Your task to perform on an android device: What's on my calendar tomorrow? Image 0: 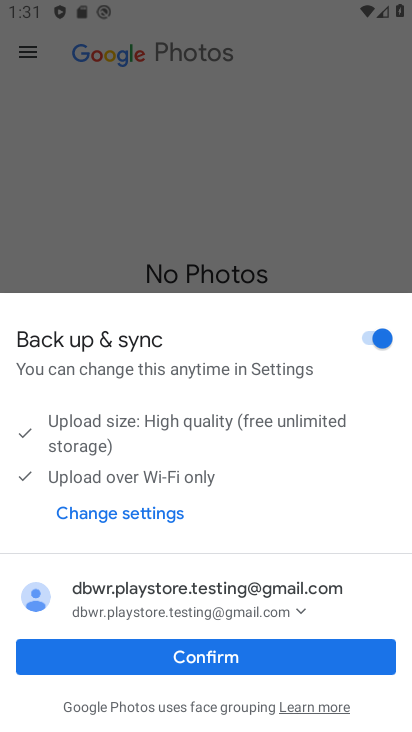
Step 0: press home button
Your task to perform on an android device: What's on my calendar tomorrow? Image 1: 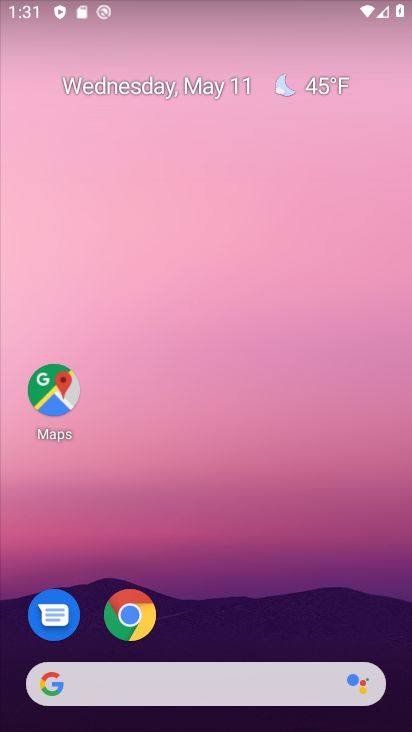
Step 1: drag from (329, 520) to (325, 169)
Your task to perform on an android device: What's on my calendar tomorrow? Image 2: 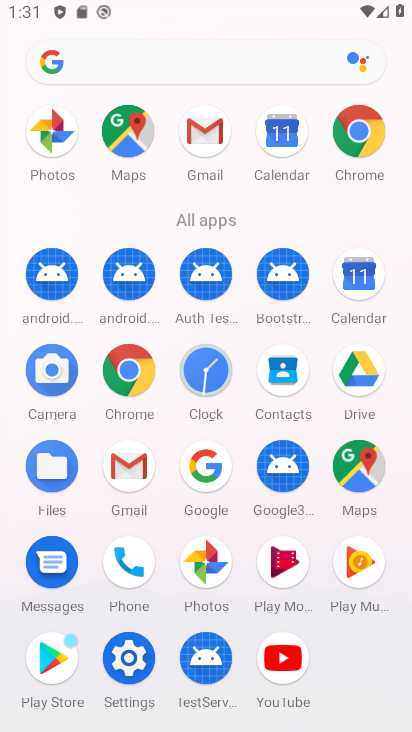
Step 2: click (361, 277)
Your task to perform on an android device: What's on my calendar tomorrow? Image 3: 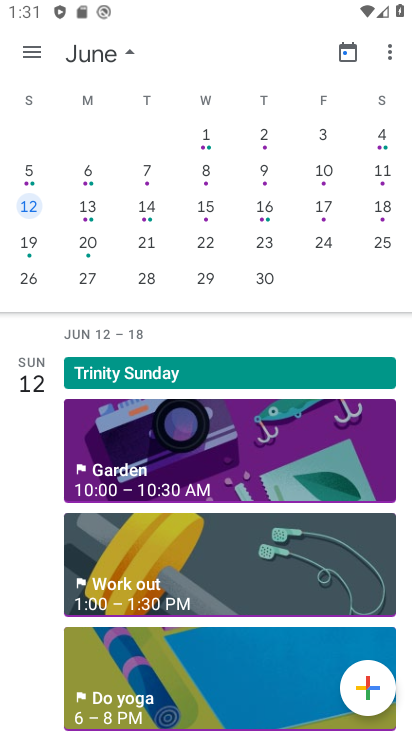
Step 3: drag from (78, 113) to (320, 114)
Your task to perform on an android device: What's on my calendar tomorrow? Image 4: 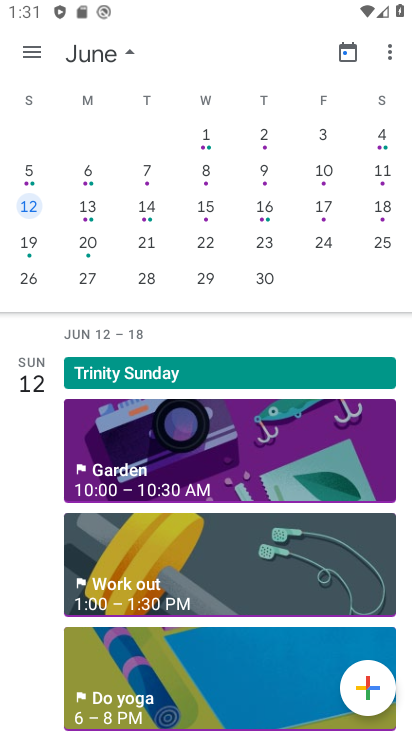
Step 4: drag from (51, 154) to (359, 162)
Your task to perform on an android device: What's on my calendar tomorrow? Image 5: 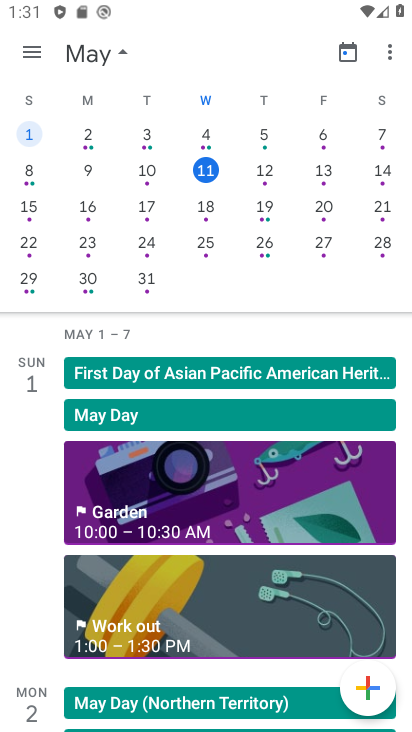
Step 5: click (261, 173)
Your task to perform on an android device: What's on my calendar tomorrow? Image 6: 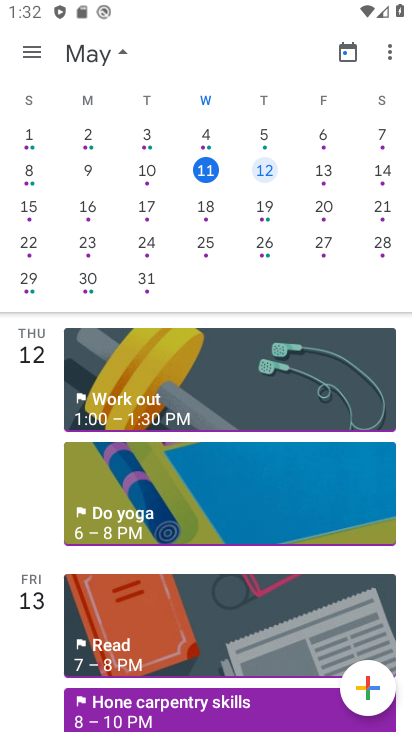
Step 6: task complete